Your task to perform on an android device: Go to CNN.com Image 0: 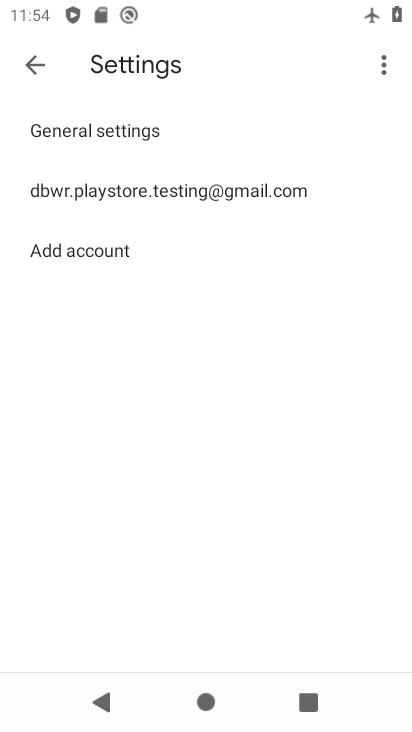
Step 0: press home button
Your task to perform on an android device: Go to CNN.com Image 1: 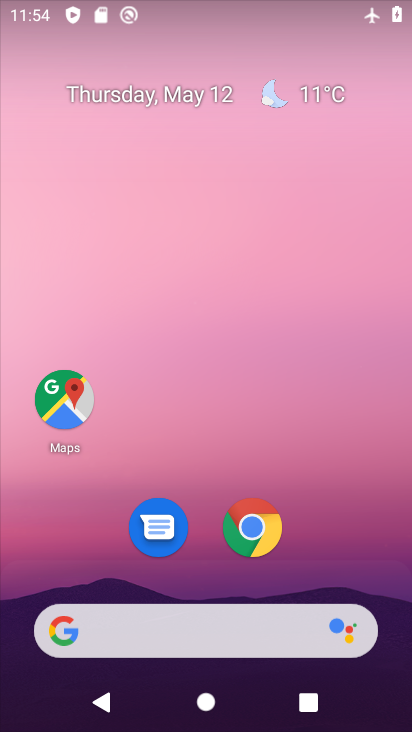
Step 1: click (255, 528)
Your task to perform on an android device: Go to CNN.com Image 2: 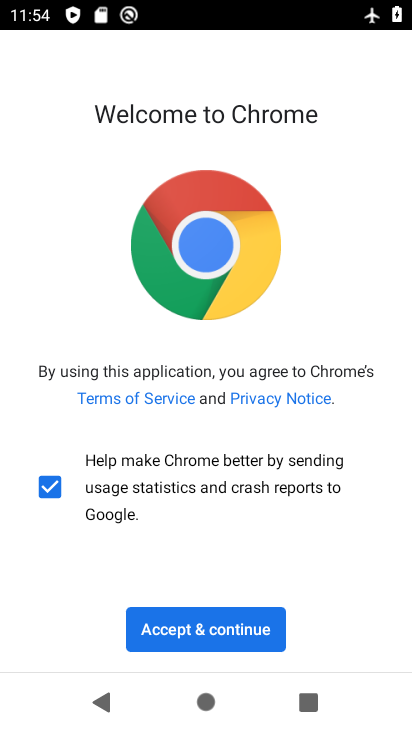
Step 2: click (244, 627)
Your task to perform on an android device: Go to CNN.com Image 3: 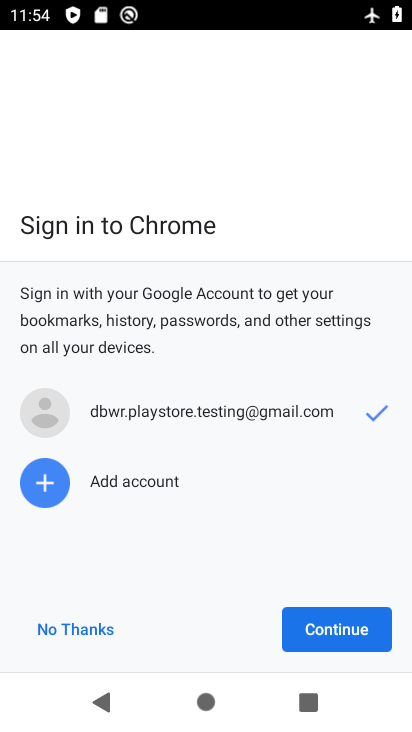
Step 3: click (57, 614)
Your task to perform on an android device: Go to CNN.com Image 4: 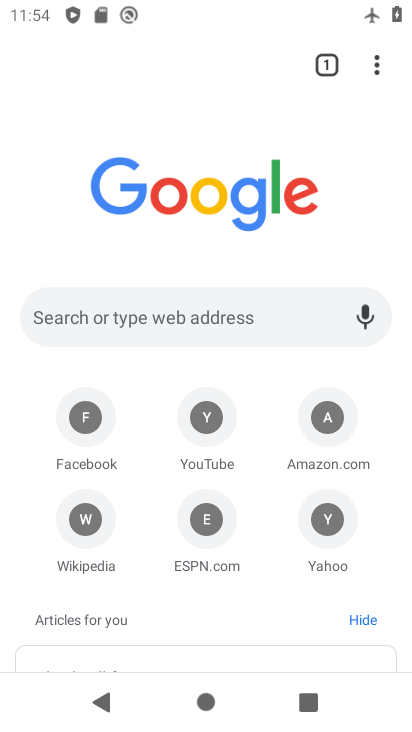
Step 4: click (192, 321)
Your task to perform on an android device: Go to CNN.com Image 5: 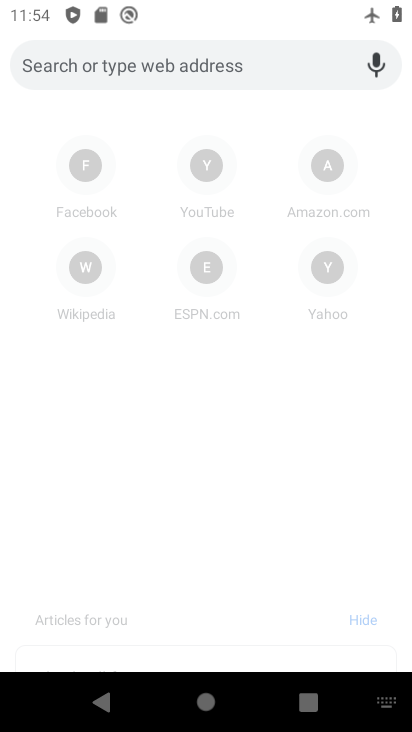
Step 5: type "CNN.com"
Your task to perform on an android device: Go to CNN.com Image 6: 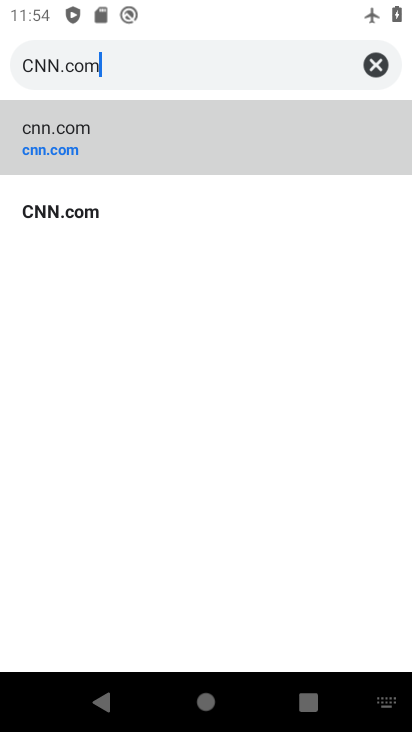
Step 6: type ""
Your task to perform on an android device: Go to CNN.com Image 7: 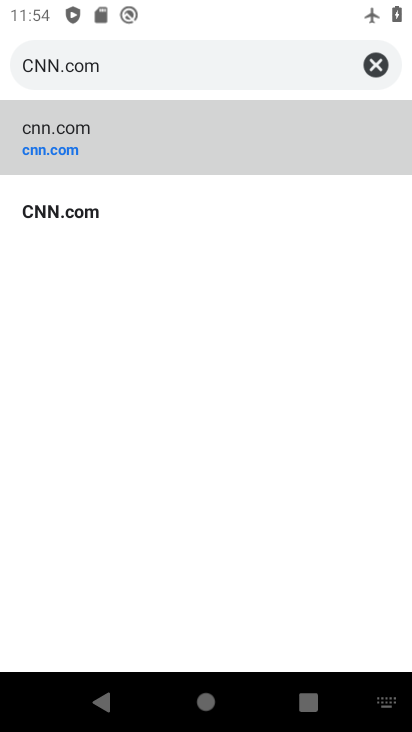
Step 7: click (156, 195)
Your task to perform on an android device: Go to CNN.com Image 8: 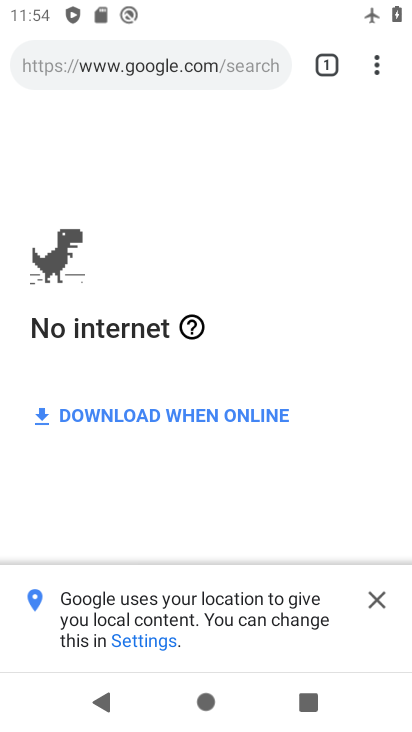
Step 8: click (377, 597)
Your task to perform on an android device: Go to CNN.com Image 9: 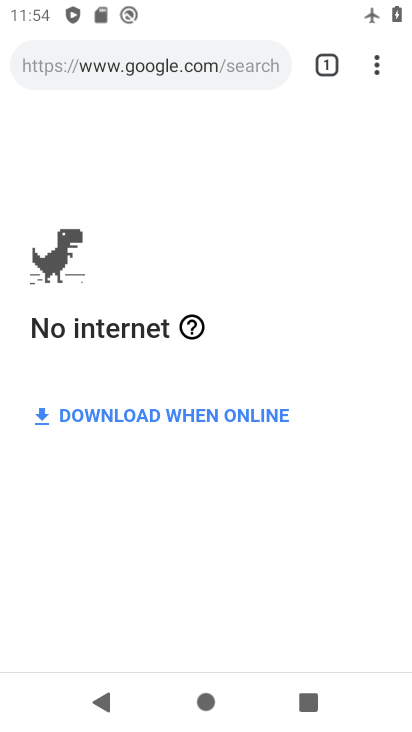
Step 9: task complete